Your task to perform on an android device: Open Wikipedia Image 0: 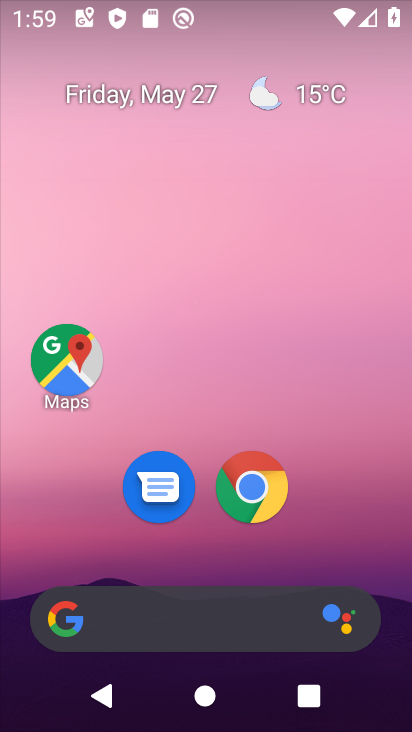
Step 0: click (155, 625)
Your task to perform on an android device: Open Wikipedia Image 1: 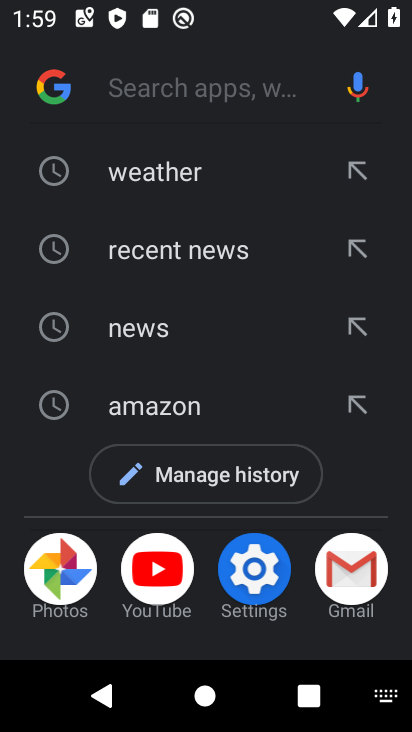
Step 1: press home button
Your task to perform on an android device: Open Wikipedia Image 2: 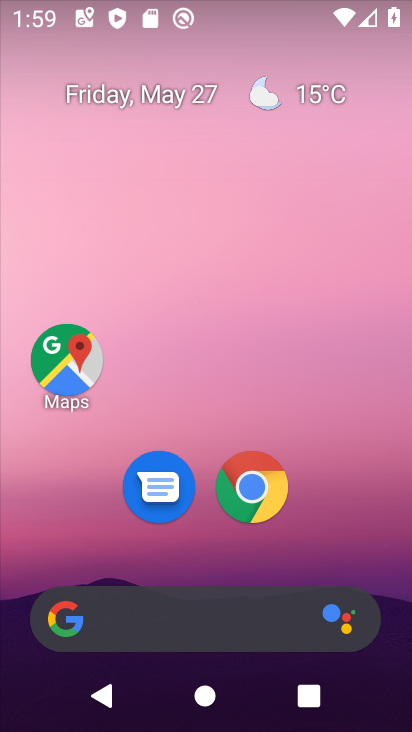
Step 2: click (252, 489)
Your task to perform on an android device: Open Wikipedia Image 3: 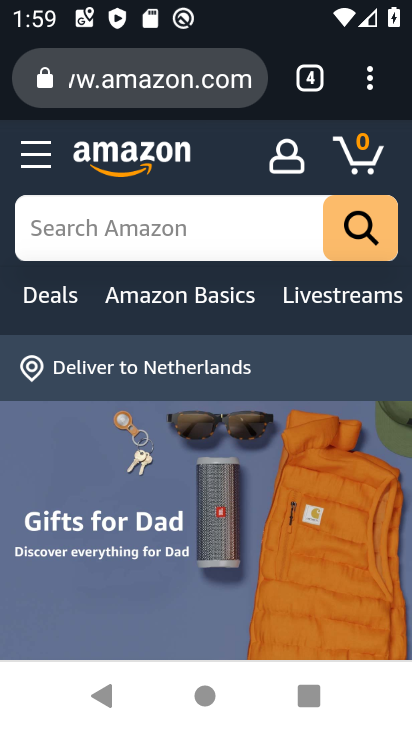
Step 3: click (300, 86)
Your task to perform on an android device: Open Wikipedia Image 4: 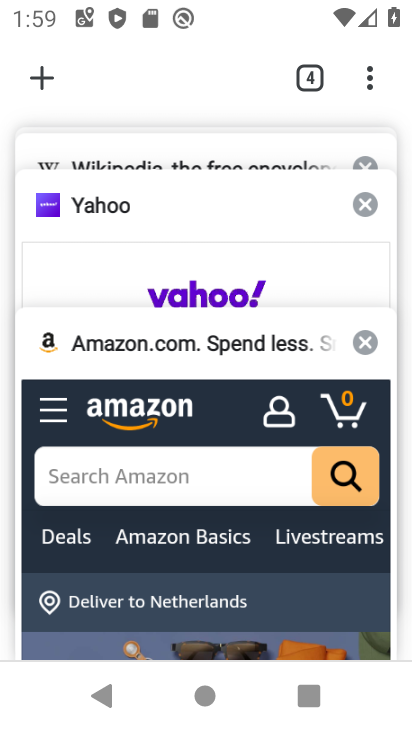
Step 4: click (39, 76)
Your task to perform on an android device: Open Wikipedia Image 5: 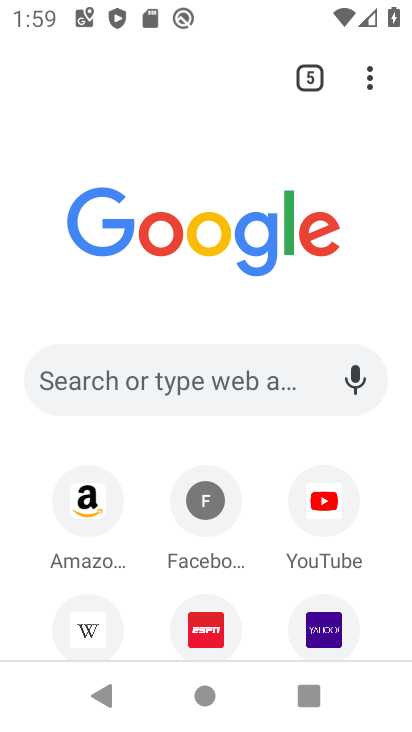
Step 5: click (71, 616)
Your task to perform on an android device: Open Wikipedia Image 6: 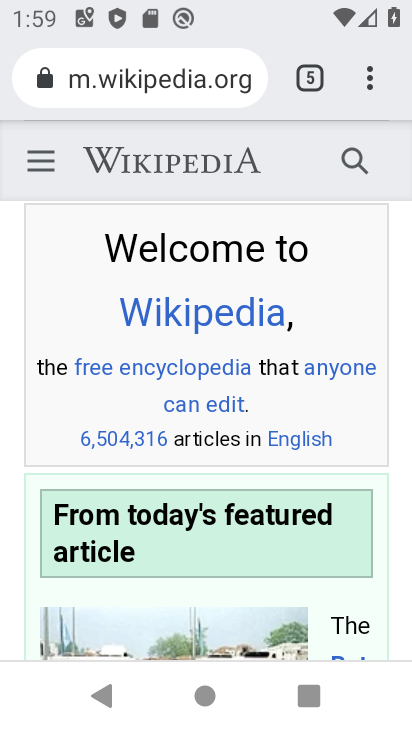
Step 6: task complete